Your task to perform on an android device: Open my contact list Image 0: 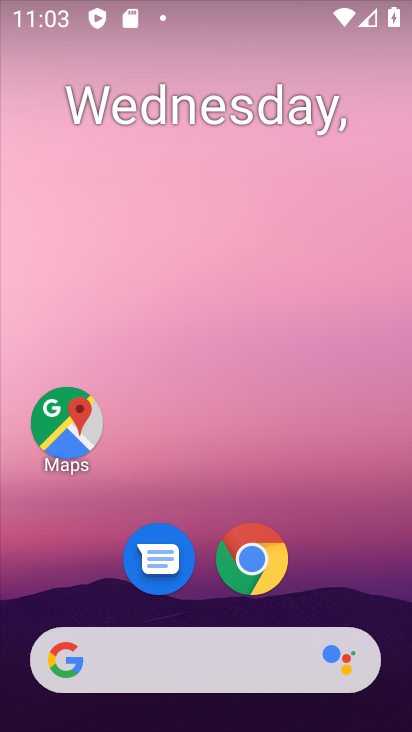
Step 0: drag from (378, 582) to (262, 269)
Your task to perform on an android device: Open my contact list Image 1: 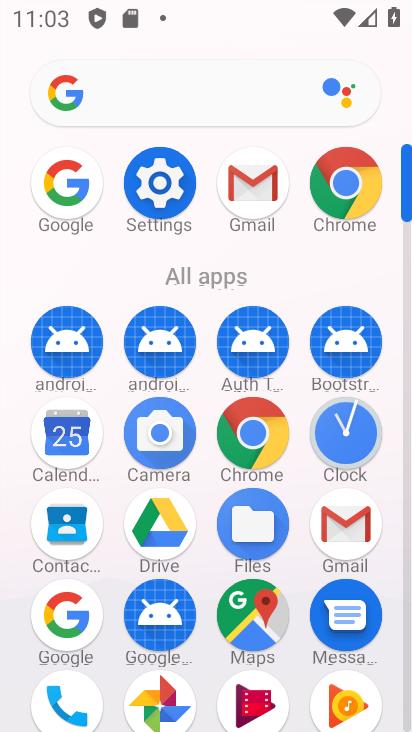
Step 1: click (70, 506)
Your task to perform on an android device: Open my contact list Image 2: 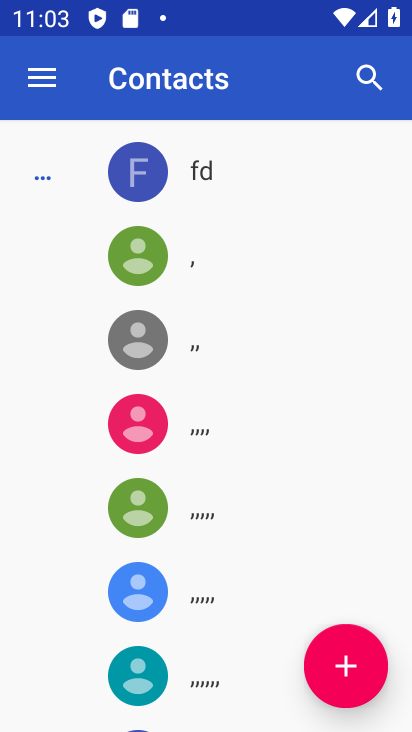
Step 2: task complete